Your task to perform on an android device: Search for the new steph curry shoes on Amazon. Image 0: 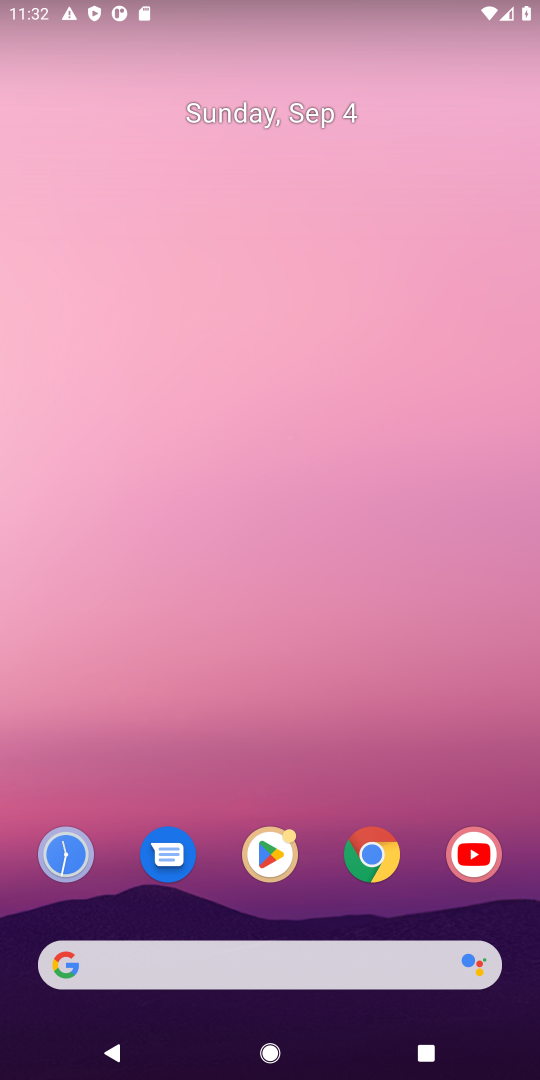
Step 0: press home button
Your task to perform on an android device: Search for the new steph curry shoes on Amazon. Image 1: 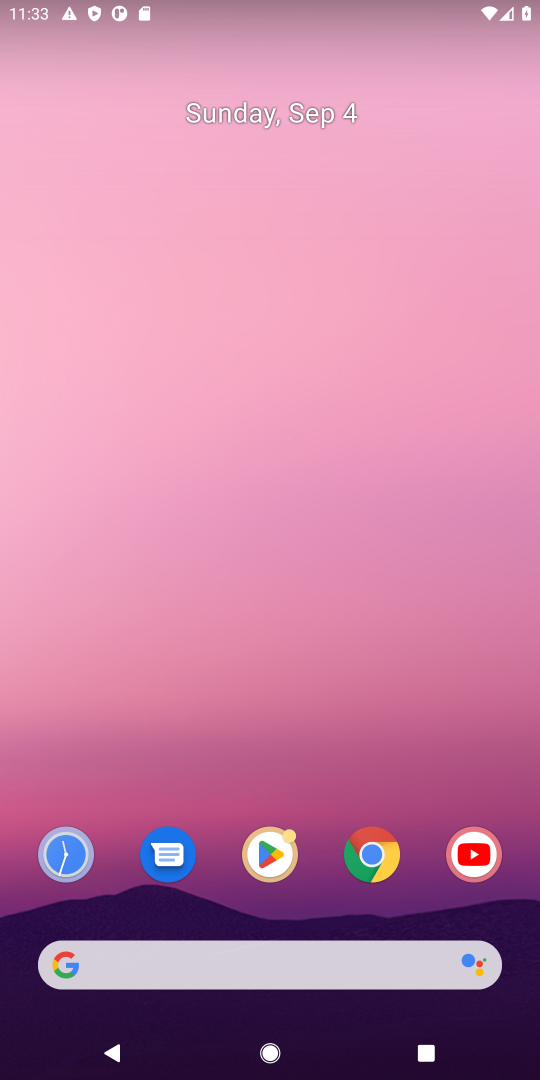
Step 1: click (246, 960)
Your task to perform on an android device: Search for the new steph curry shoes on Amazon. Image 2: 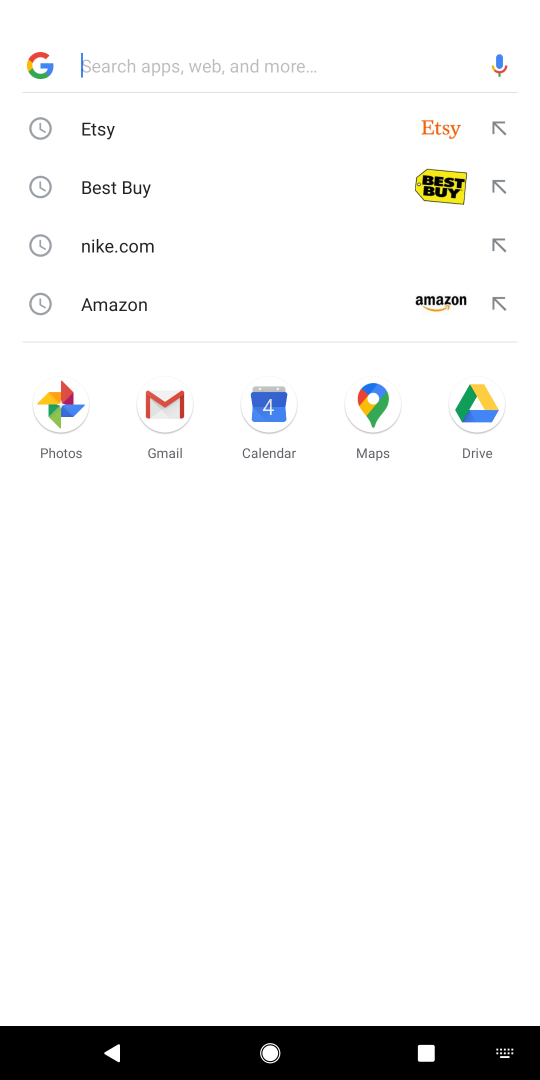
Step 2: press enter
Your task to perform on an android device: Search for the new steph curry shoes on Amazon. Image 3: 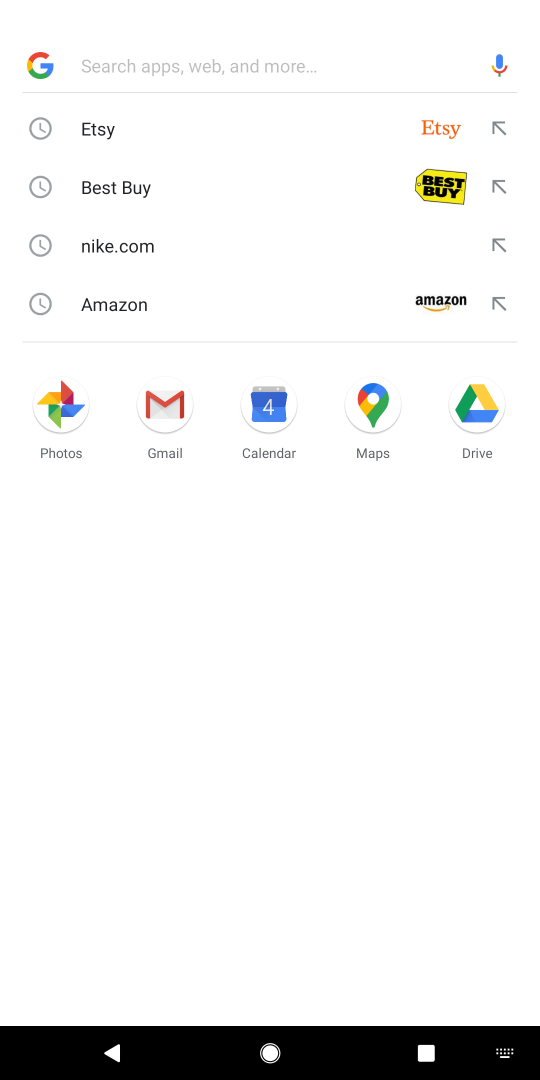
Step 3: type "amazon"
Your task to perform on an android device: Search for the new steph curry shoes on Amazon. Image 4: 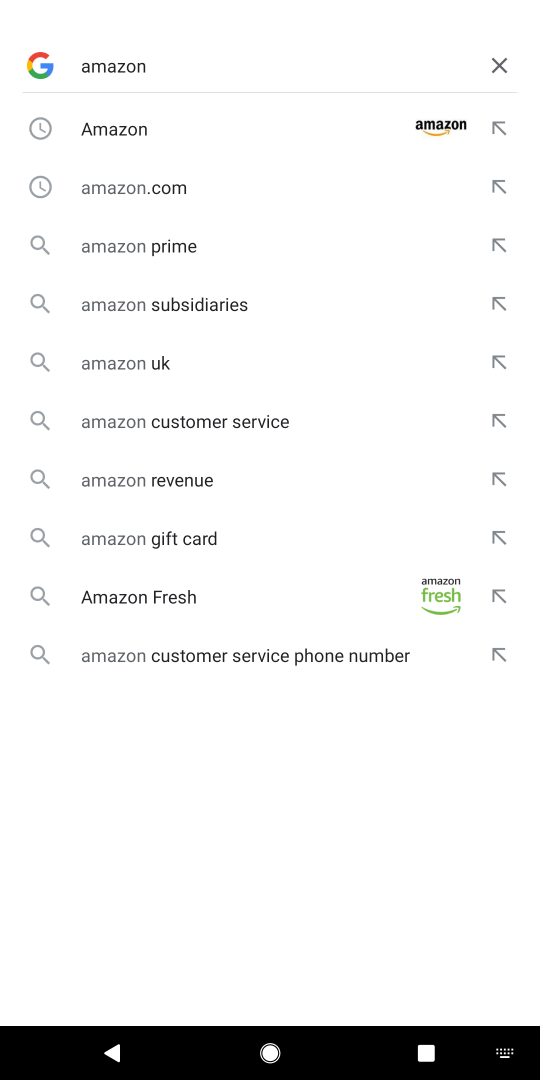
Step 4: click (166, 123)
Your task to perform on an android device: Search for the new steph curry shoes on Amazon. Image 5: 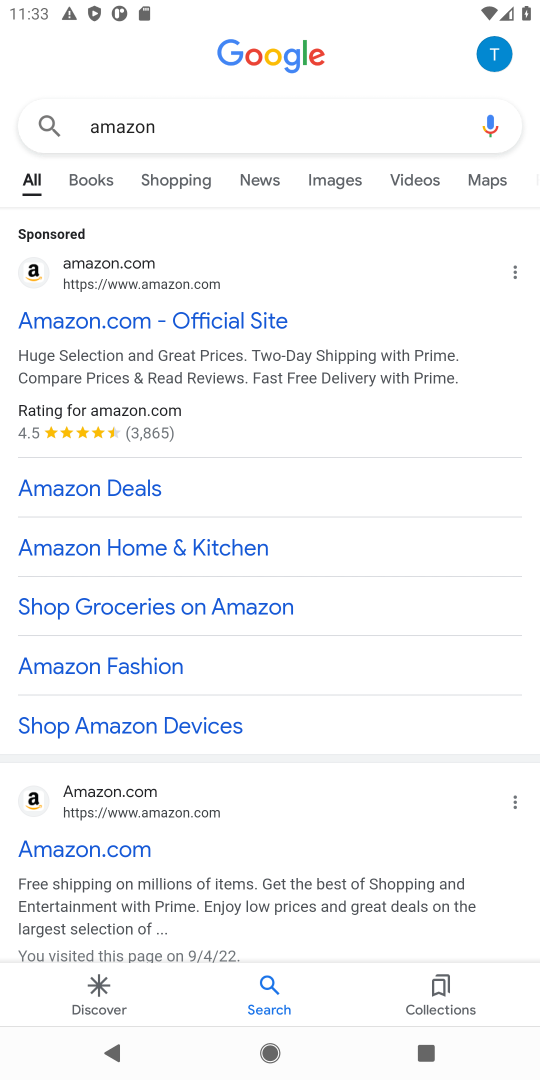
Step 5: click (198, 319)
Your task to perform on an android device: Search for the new steph curry shoes on Amazon. Image 6: 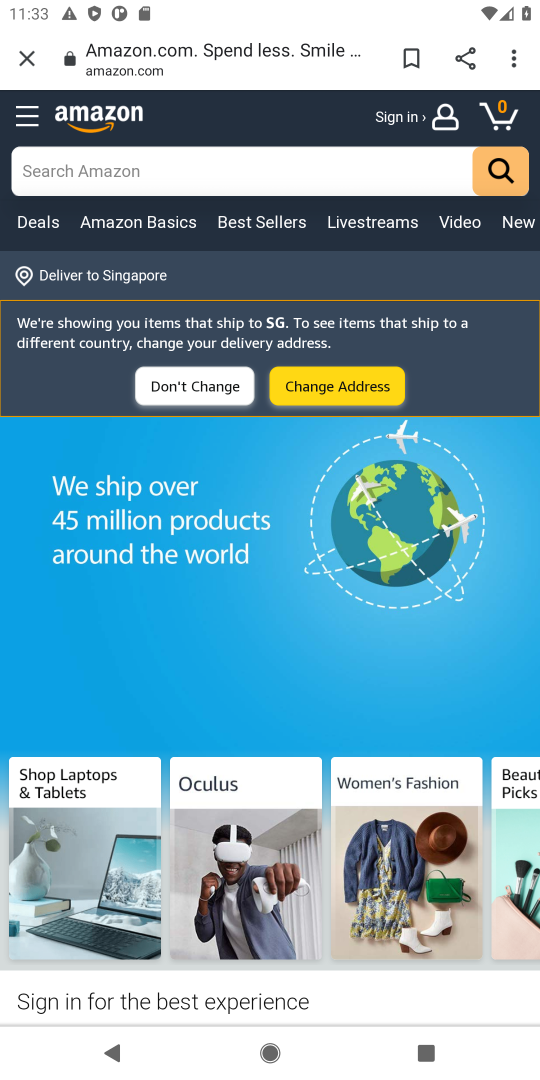
Step 6: click (81, 172)
Your task to perform on an android device: Search for the new steph curry shoes on Amazon. Image 7: 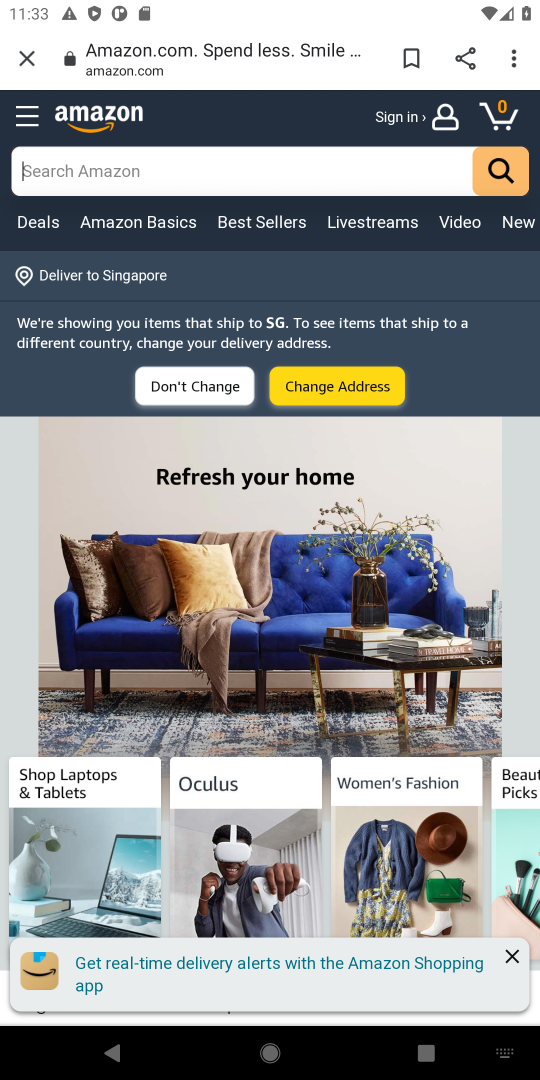
Step 7: type "steph curry shoes"
Your task to perform on an android device: Search for the new steph curry shoes on Amazon. Image 8: 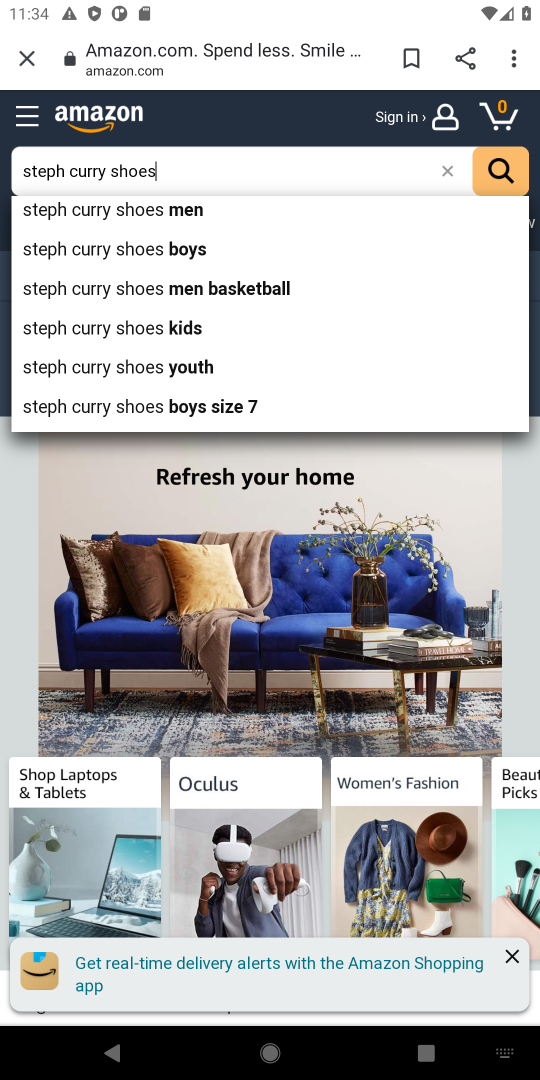
Step 8: click (493, 164)
Your task to perform on an android device: Search for the new steph curry shoes on Amazon. Image 9: 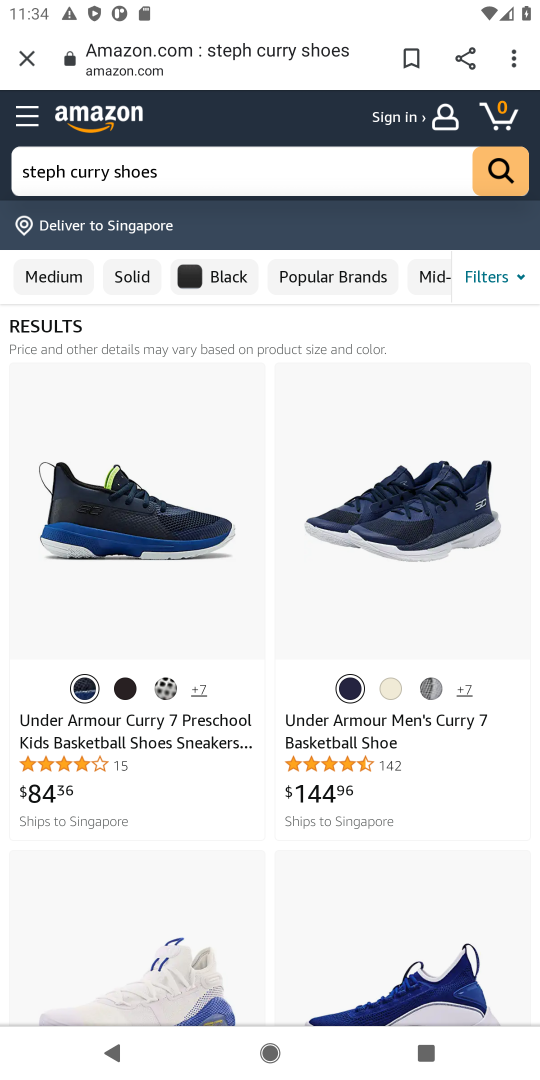
Step 9: task complete